Your task to perform on an android device: Do I have any events this weekend? Image 0: 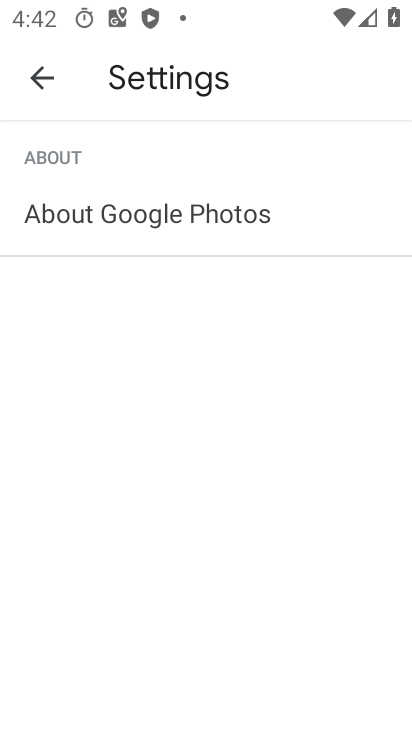
Step 0: press home button
Your task to perform on an android device: Do I have any events this weekend? Image 1: 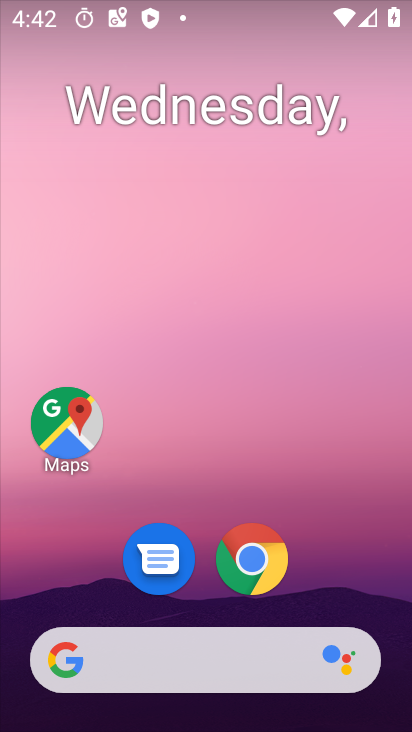
Step 1: click (215, 105)
Your task to perform on an android device: Do I have any events this weekend? Image 2: 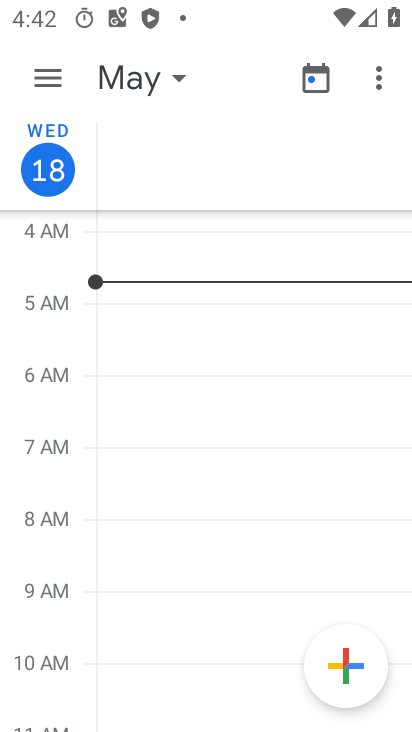
Step 2: click (51, 80)
Your task to perform on an android device: Do I have any events this weekend? Image 3: 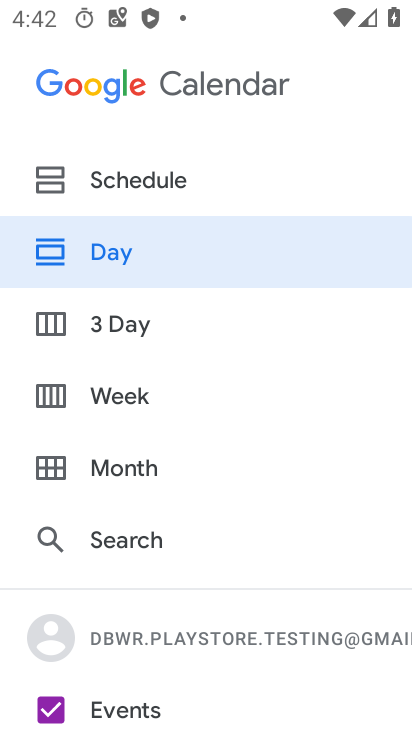
Step 3: click (130, 400)
Your task to perform on an android device: Do I have any events this weekend? Image 4: 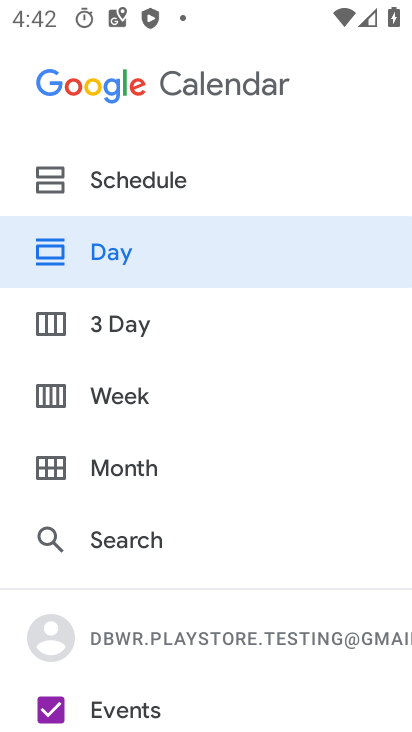
Step 4: click (131, 395)
Your task to perform on an android device: Do I have any events this weekend? Image 5: 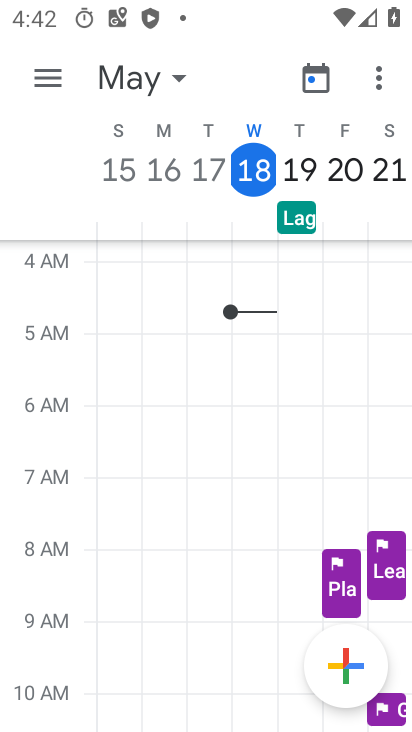
Step 5: click (171, 74)
Your task to perform on an android device: Do I have any events this weekend? Image 6: 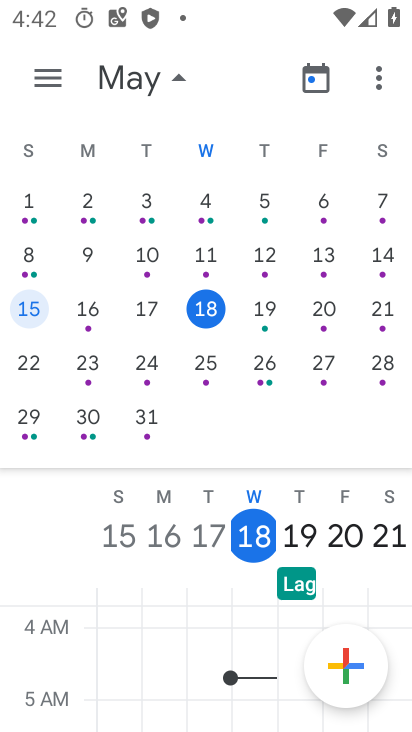
Step 6: click (165, 75)
Your task to perform on an android device: Do I have any events this weekend? Image 7: 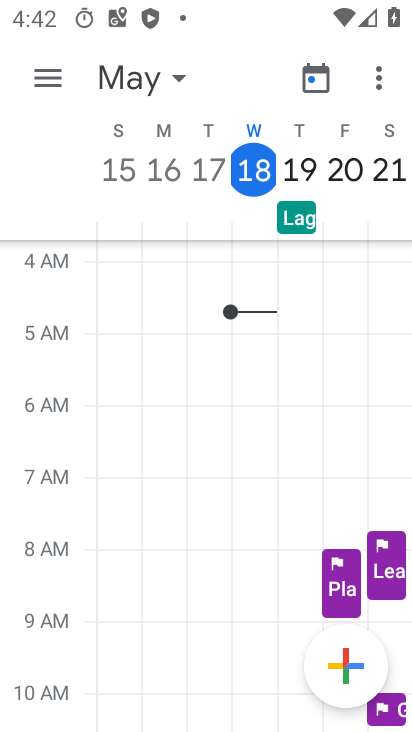
Step 7: task complete